Your task to perform on an android device: Show the shopping cart on bestbuy. Image 0: 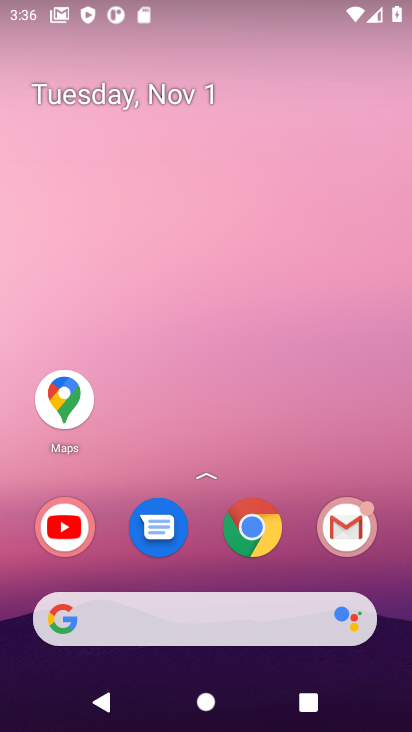
Step 0: press home button
Your task to perform on an android device: Show the shopping cart on bestbuy. Image 1: 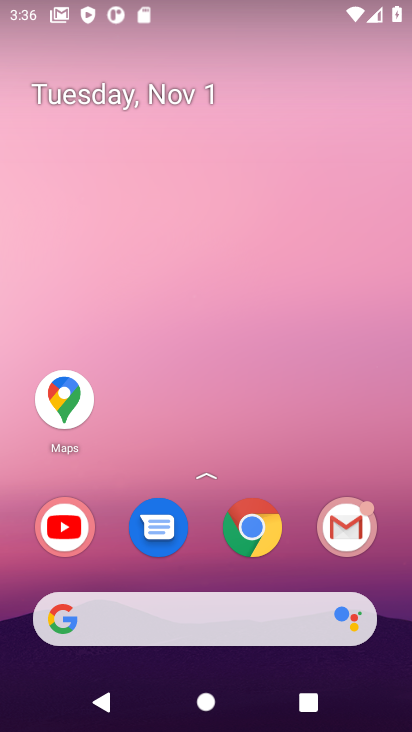
Step 1: click (229, 617)
Your task to perform on an android device: Show the shopping cart on bestbuy. Image 2: 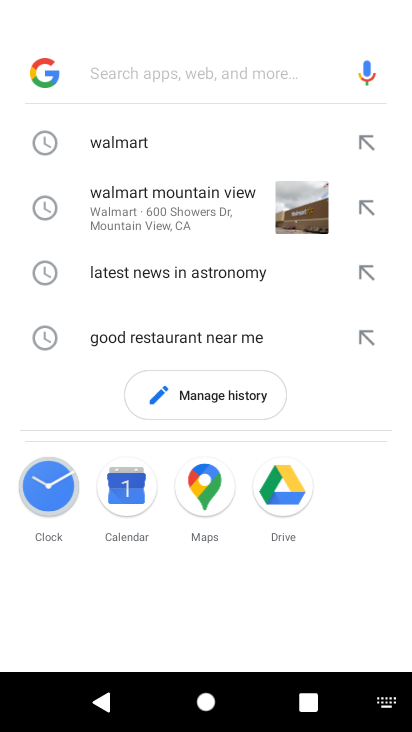
Step 2: type "bestbuy"
Your task to perform on an android device: Show the shopping cart on bestbuy. Image 3: 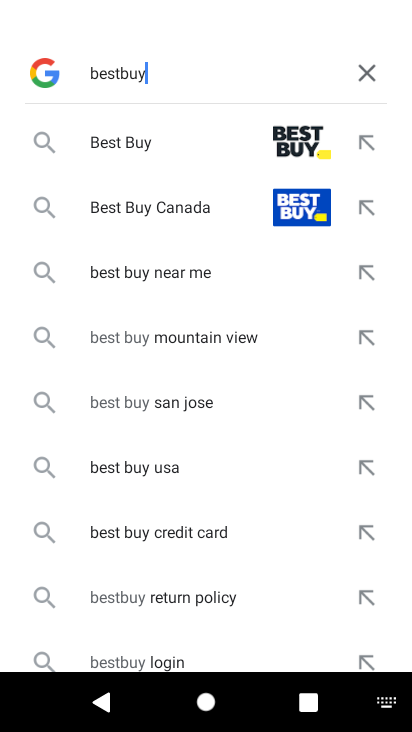
Step 3: click (139, 151)
Your task to perform on an android device: Show the shopping cart on bestbuy. Image 4: 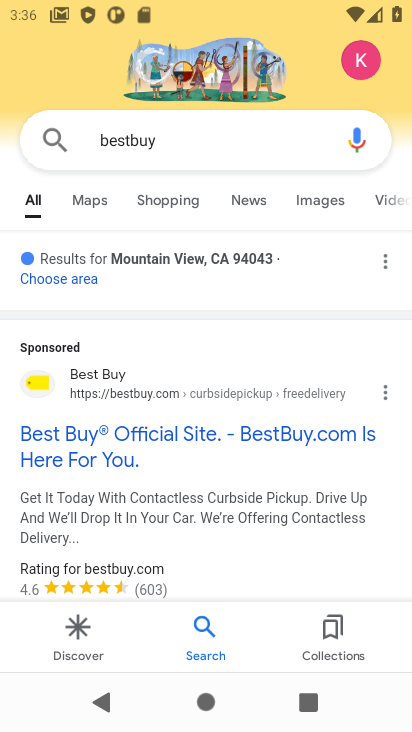
Step 4: click (105, 388)
Your task to perform on an android device: Show the shopping cart on bestbuy. Image 5: 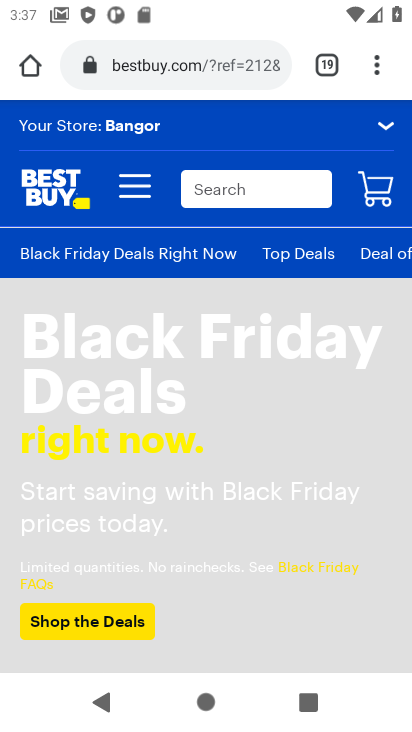
Step 5: click (374, 191)
Your task to perform on an android device: Show the shopping cart on bestbuy. Image 6: 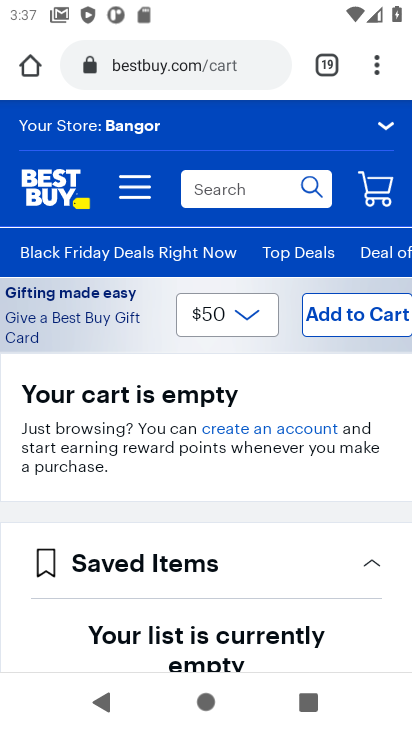
Step 6: task complete